Your task to perform on an android device: Go to Yahoo.com Image 0: 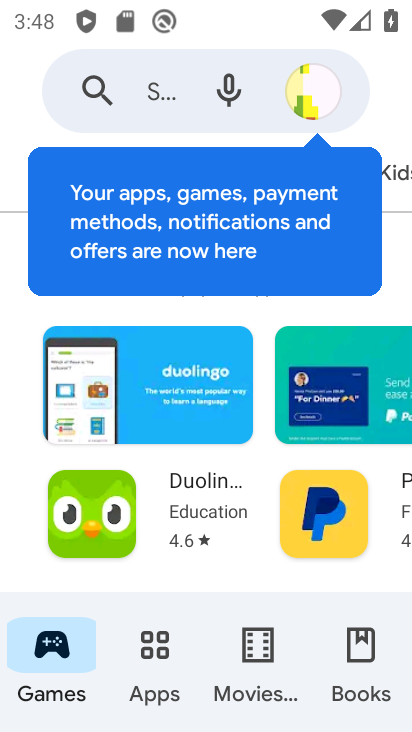
Step 0: press home button
Your task to perform on an android device: Go to Yahoo.com Image 1: 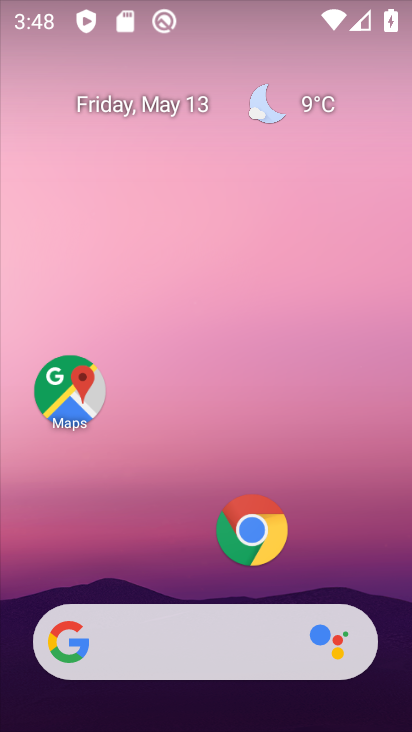
Step 1: drag from (206, 568) to (219, 85)
Your task to perform on an android device: Go to Yahoo.com Image 2: 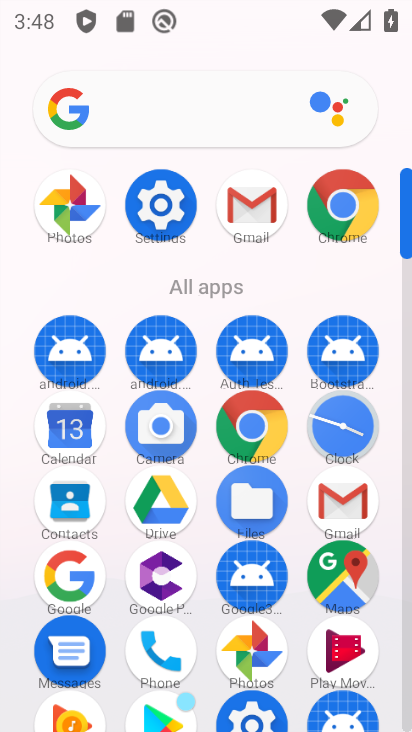
Step 2: click (253, 421)
Your task to perform on an android device: Go to Yahoo.com Image 3: 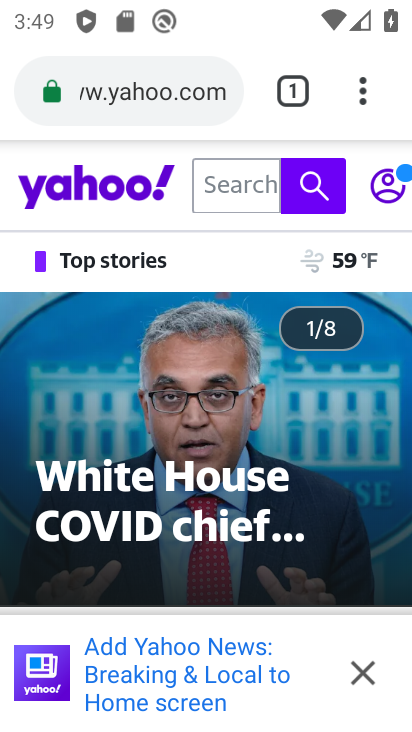
Step 3: click (360, 672)
Your task to perform on an android device: Go to Yahoo.com Image 4: 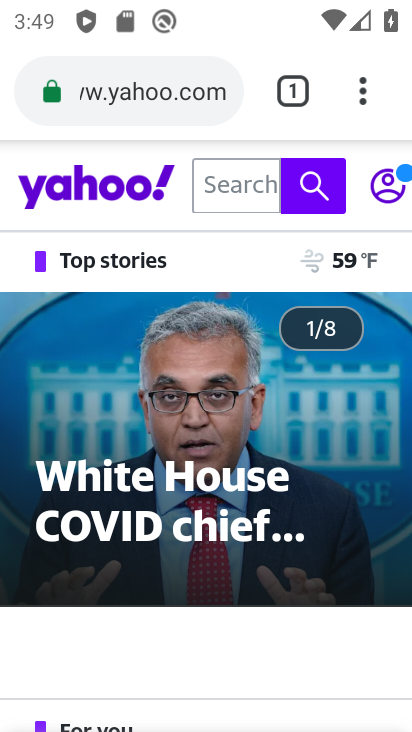
Step 4: task complete